Your task to perform on an android device: Open Maps and search for coffee Image 0: 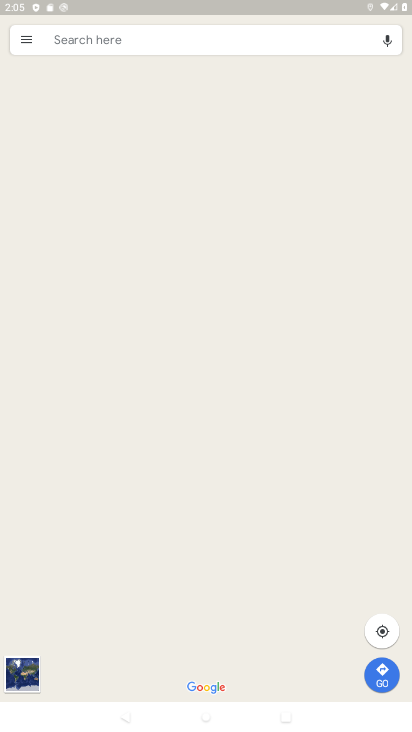
Step 0: press home button
Your task to perform on an android device: Open Maps and search for coffee Image 1: 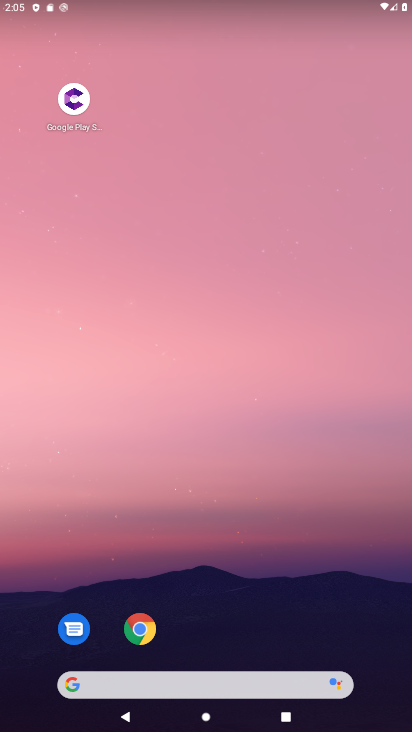
Step 1: drag from (29, 718) to (86, 604)
Your task to perform on an android device: Open Maps and search for coffee Image 2: 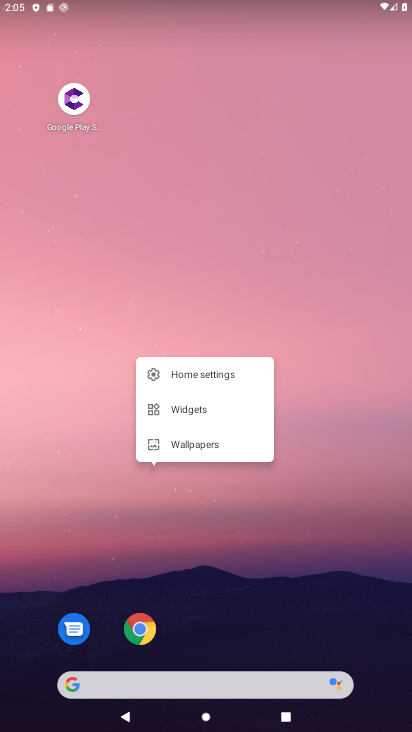
Step 2: drag from (119, 513) to (288, 0)
Your task to perform on an android device: Open Maps and search for coffee Image 3: 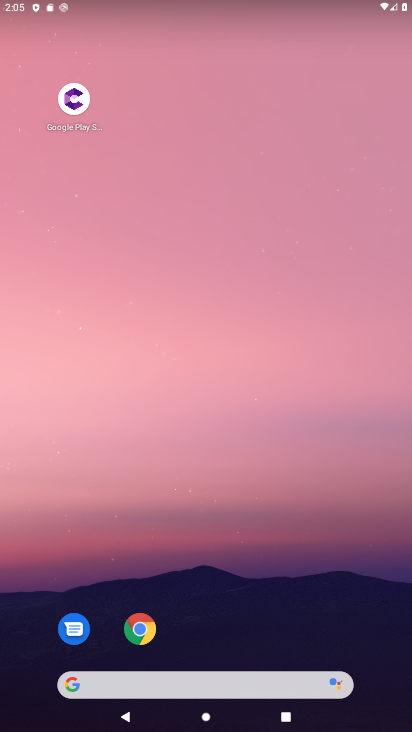
Step 3: drag from (74, 638) to (271, 247)
Your task to perform on an android device: Open Maps and search for coffee Image 4: 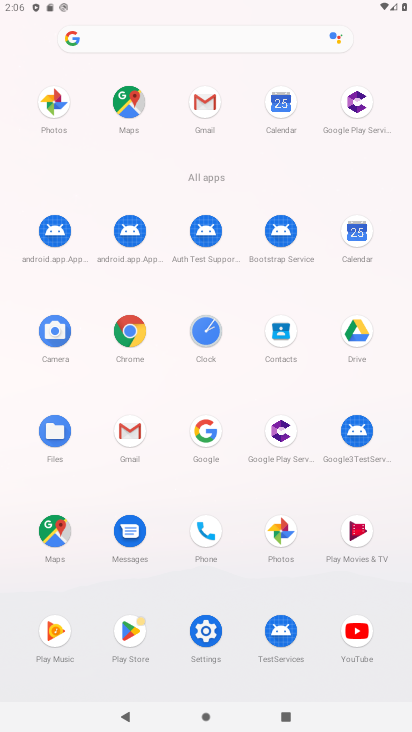
Step 4: click (55, 535)
Your task to perform on an android device: Open Maps and search for coffee Image 5: 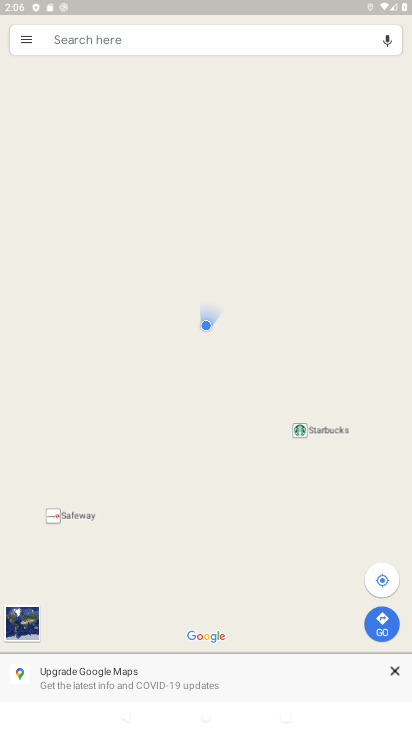
Step 5: click (95, 46)
Your task to perform on an android device: Open Maps and search for coffee Image 6: 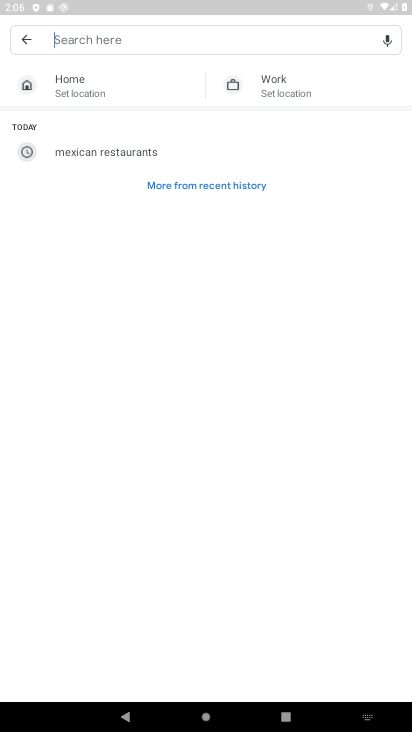
Step 6: type "coffee"
Your task to perform on an android device: Open Maps and search for coffee Image 7: 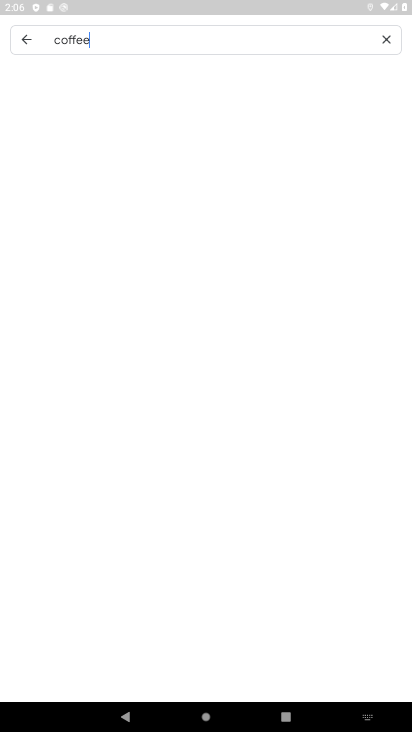
Step 7: type ""
Your task to perform on an android device: Open Maps and search for coffee Image 8: 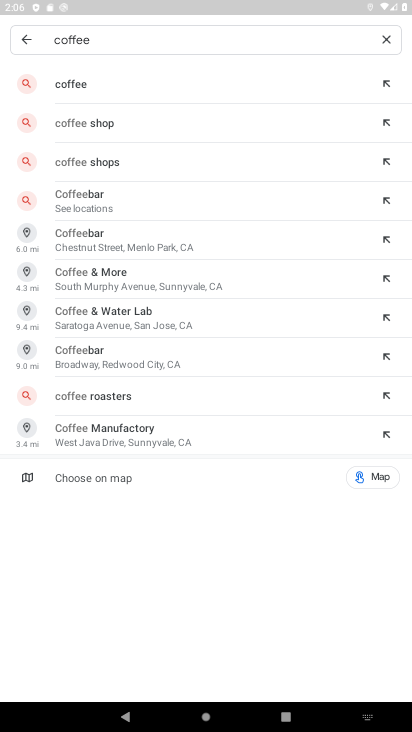
Step 8: click (50, 79)
Your task to perform on an android device: Open Maps and search for coffee Image 9: 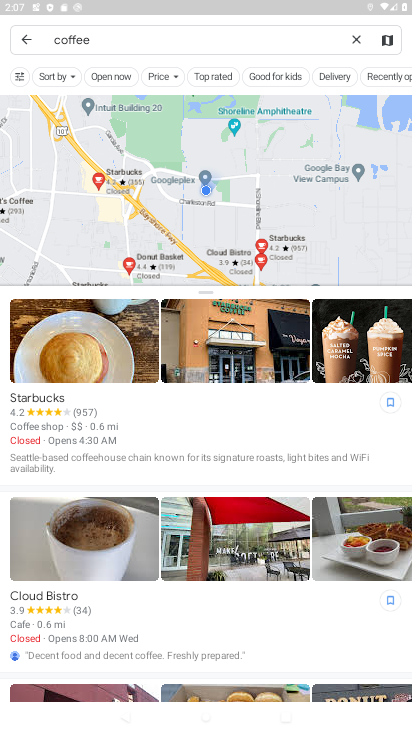
Step 9: task complete